Your task to perform on an android device: Open wifi settings Image 0: 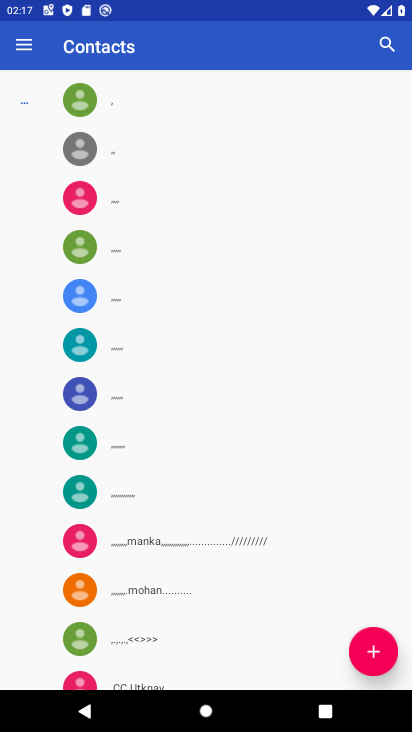
Step 0: press home button
Your task to perform on an android device: Open wifi settings Image 1: 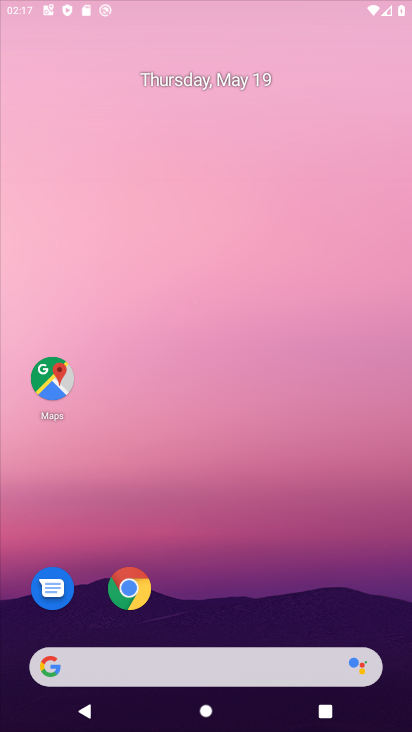
Step 1: drag from (218, 593) to (246, 122)
Your task to perform on an android device: Open wifi settings Image 2: 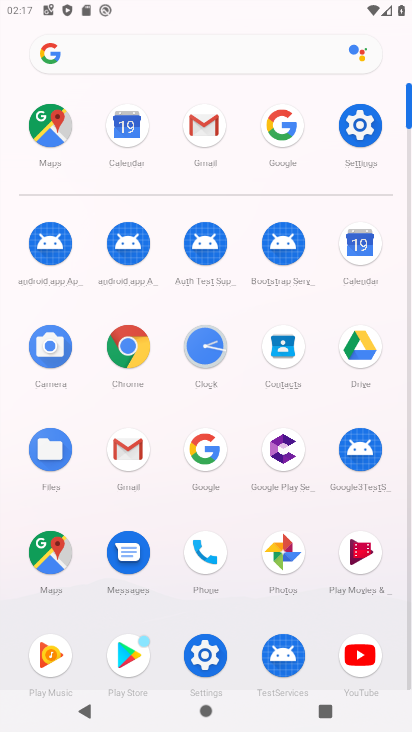
Step 2: click (355, 112)
Your task to perform on an android device: Open wifi settings Image 3: 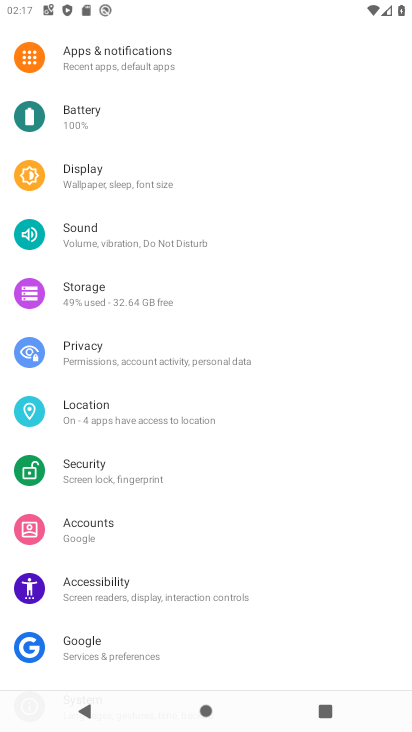
Step 3: drag from (156, 122) to (207, 486)
Your task to perform on an android device: Open wifi settings Image 4: 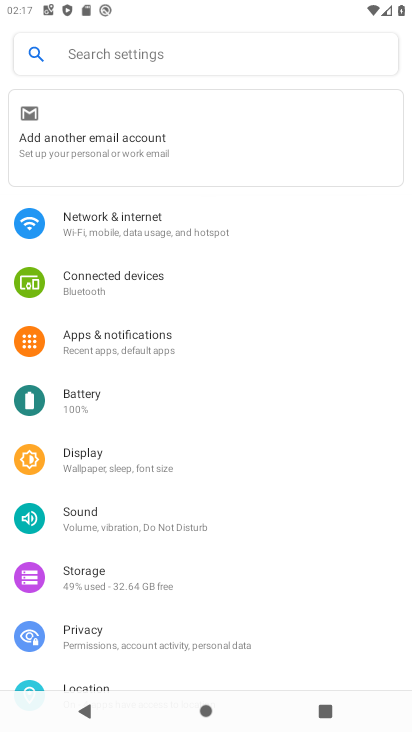
Step 4: click (126, 221)
Your task to perform on an android device: Open wifi settings Image 5: 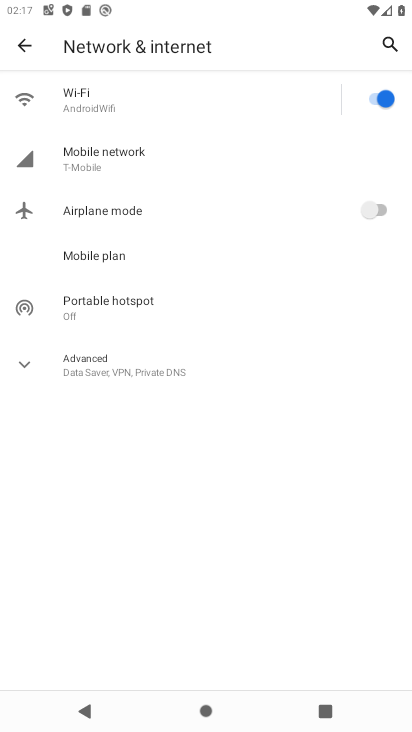
Step 5: click (108, 101)
Your task to perform on an android device: Open wifi settings Image 6: 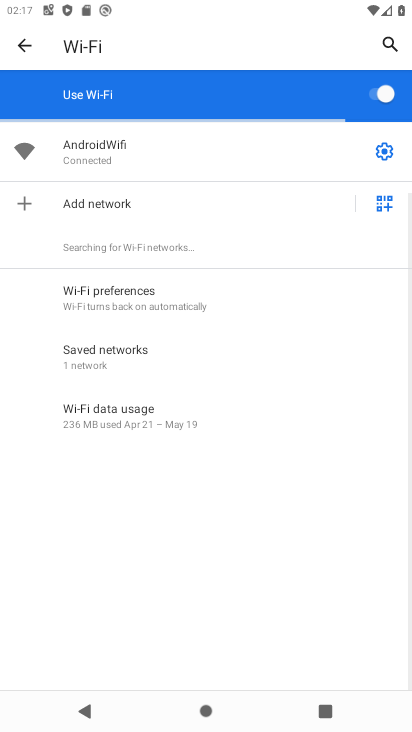
Step 6: click (382, 156)
Your task to perform on an android device: Open wifi settings Image 7: 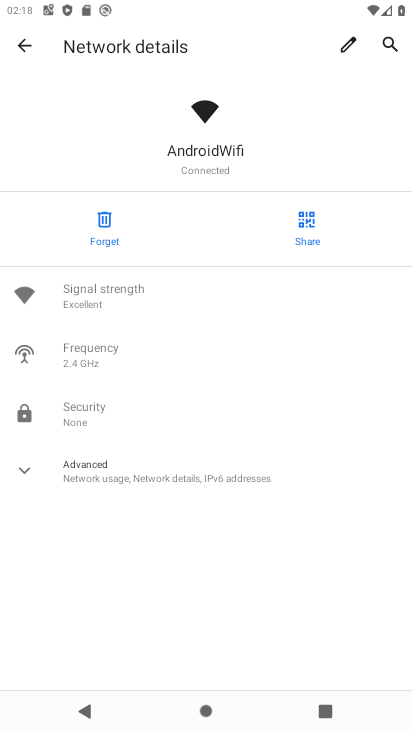
Step 7: task complete